Your task to perform on an android device: Open display settings Image 0: 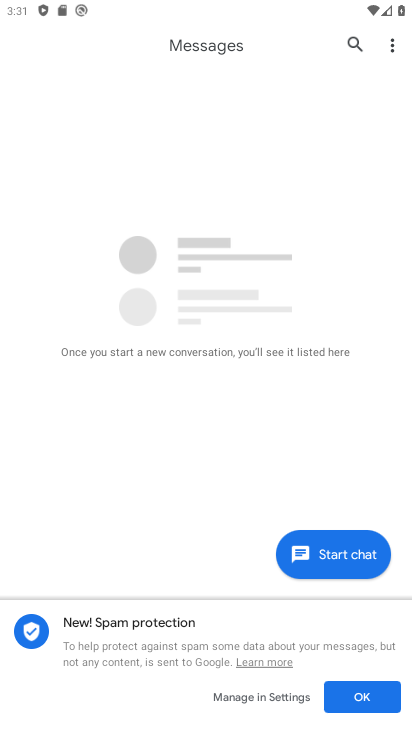
Step 0: press home button
Your task to perform on an android device: Open display settings Image 1: 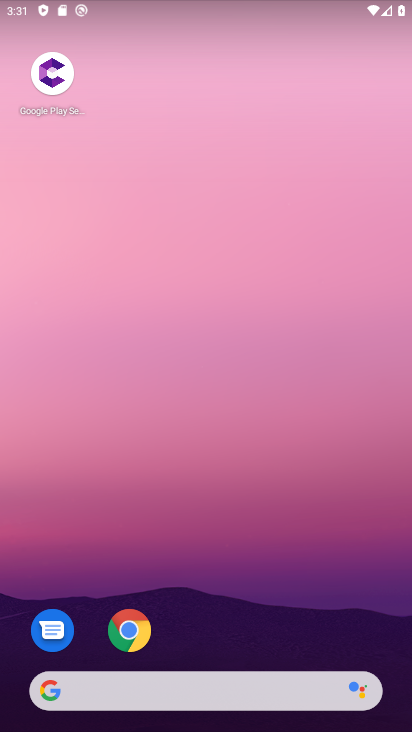
Step 1: drag from (72, 348) to (377, 427)
Your task to perform on an android device: Open display settings Image 2: 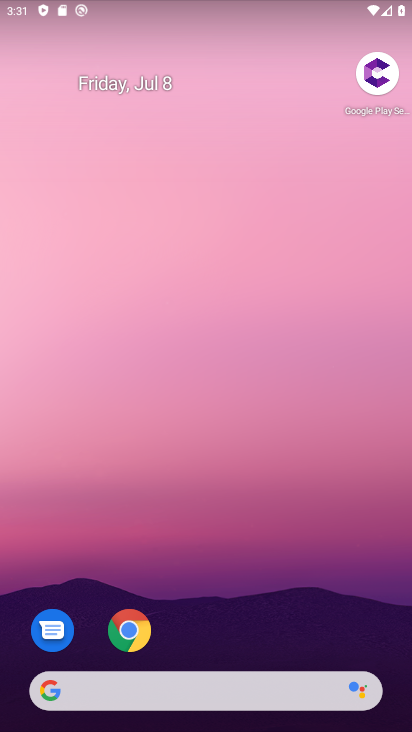
Step 2: drag from (231, 561) to (246, 96)
Your task to perform on an android device: Open display settings Image 3: 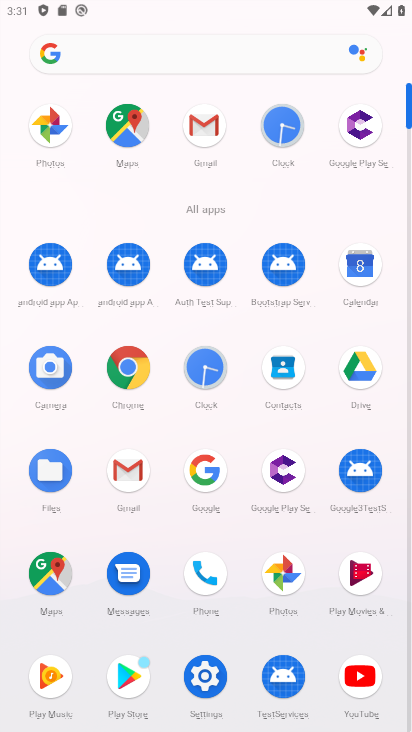
Step 3: click (206, 659)
Your task to perform on an android device: Open display settings Image 4: 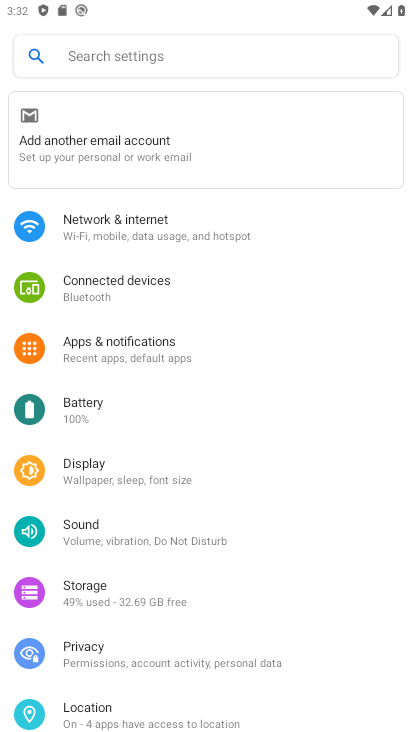
Step 4: click (174, 474)
Your task to perform on an android device: Open display settings Image 5: 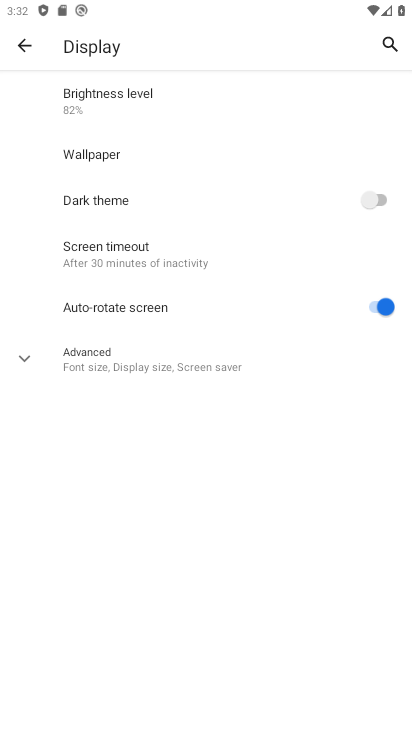
Step 5: task complete